Your task to perform on an android device: What is the recent news? Image 0: 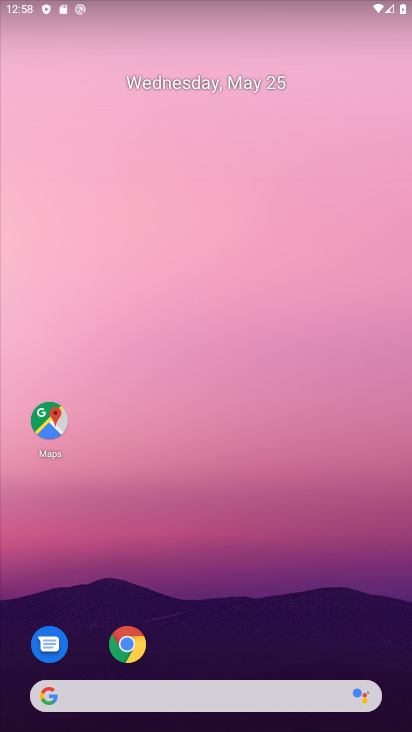
Step 0: drag from (214, 671) to (84, 109)
Your task to perform on an android device: What is the recent news? Image 1: 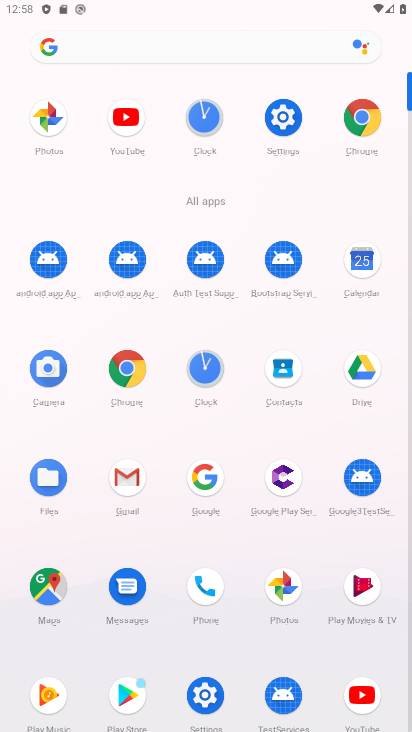
Step 1: click (204, 484)
Your task to perform on an android device: What is the recent news? Image 2: 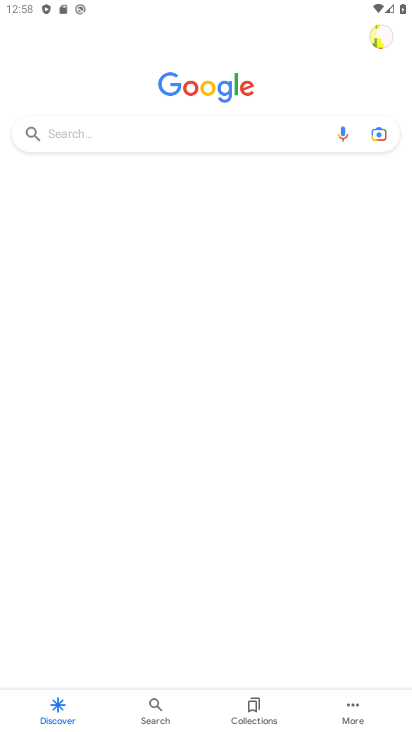
Step 2: click (175, 142)
Your task to perform on an android device: What is the recent news? Image 3: 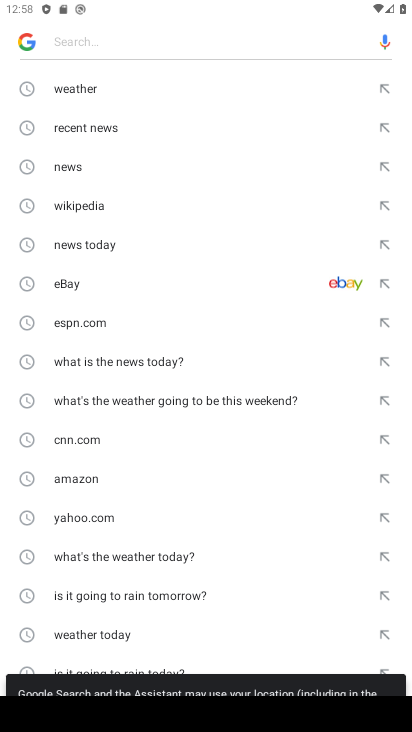
Step 3: click (103, 133)
Your task to perform on an android device: What is the recent news? Image 4: 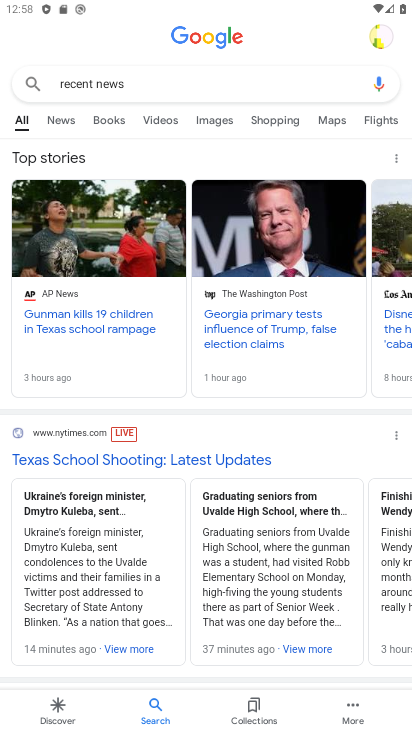
Step 4: task complete